Your task to perform on an android device: Go to network settings Image 0: 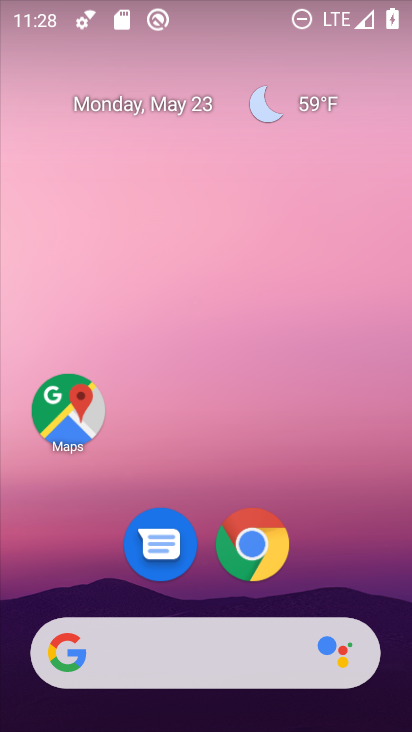
Step 0: drag from (390, 600) to (342, 124)
Your task to perform on an android device: Go to network settings Image 1: 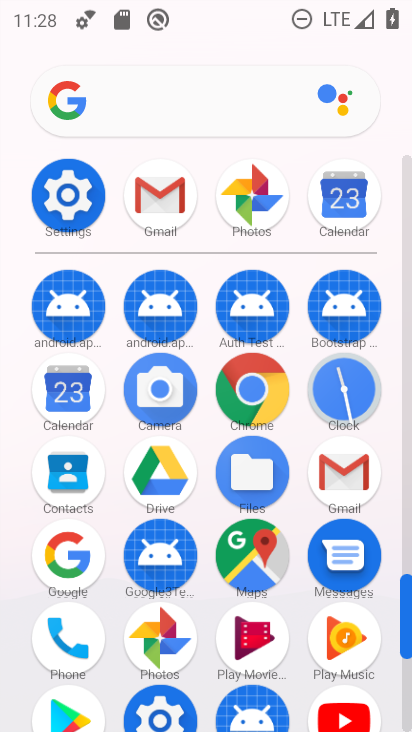
Step 1: click (405, 715)
Your task to perform on an android device: Go to network settings Image 2: 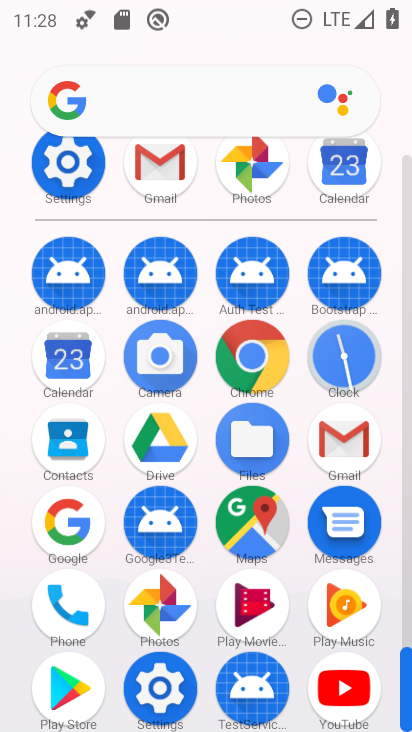
Step 2: click (163, 686)
Your task to perform on an android device: Go to network settings Image 3: 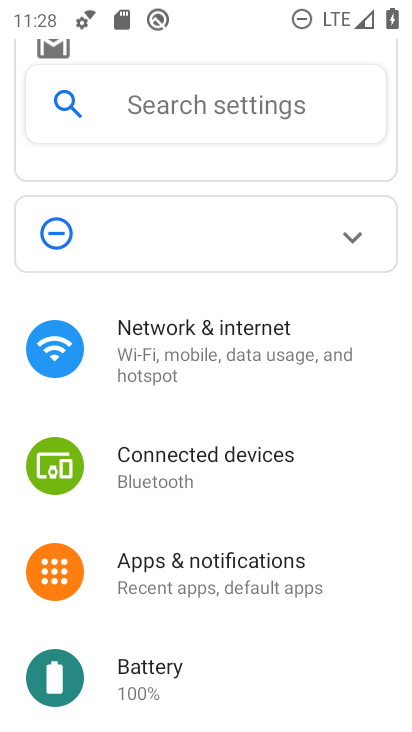
Step 3: click (187, 345)
Your task to perform on an android device: Go to network settings Image 4: 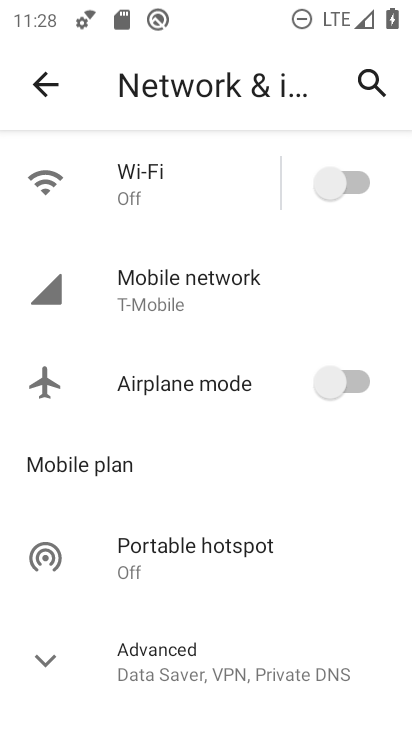
Step 4: click (167, 290)
Your task to perform on an android device: Go to network settings Image 5: 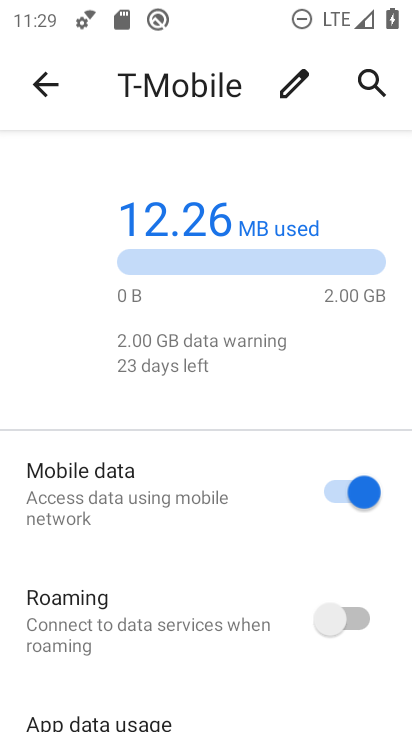
Step 5: task complete